Your task to perform on an android device: Go to calendar. Show me events next week Image 0: 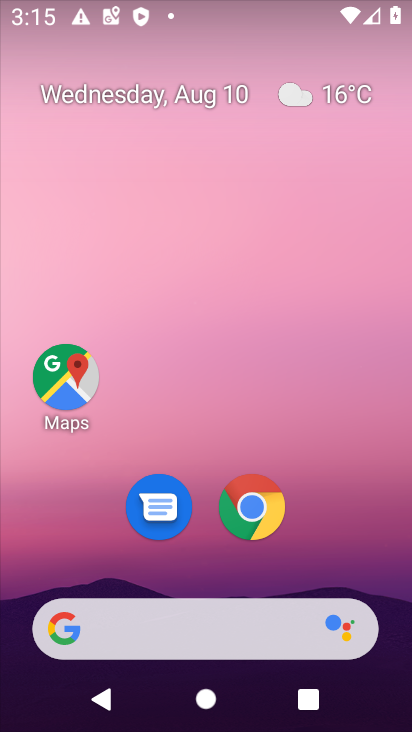
Step 0: drag from (351, 516) to (332, 10)
Your task to perform on an android device: Go to calendar. Show me events next week Image 1: 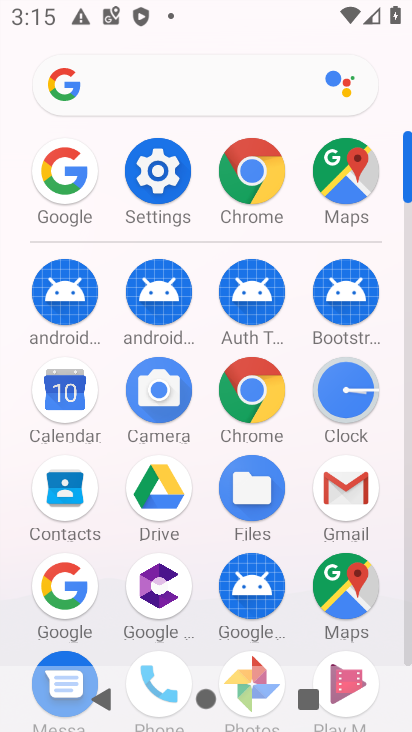
Step 1: click (42, 398)
Your task to perform on an android device: Go to calendar. Show me events next week Image 2: 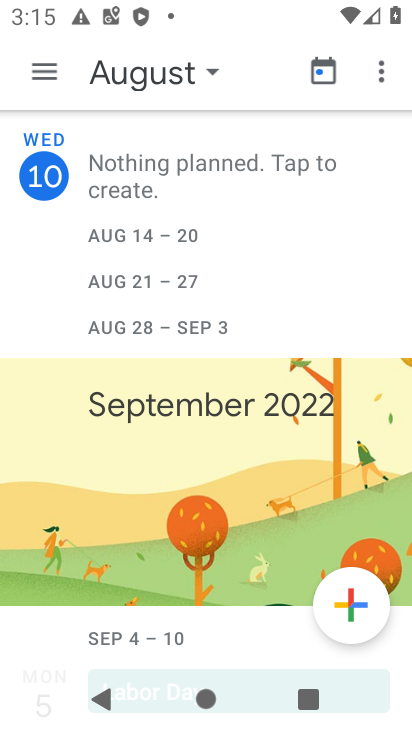
Step 2: click (128, 80)
Your task to perform on an android device: Go to calendar. Show me events next week Image 3: 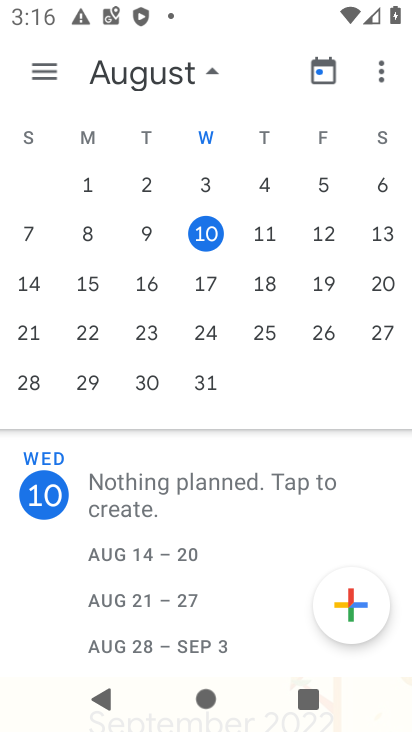
Step 3: click (210, 279)
Your task to perform on an android device: Go to calendar. Show me events next week Image 4: 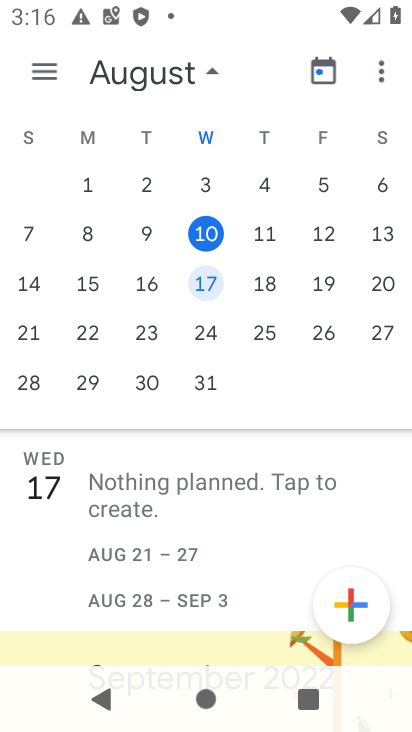
Step 4: click (51, 79)
Your task to perform on an android device: Go to calendar. Show me events next week Image 5: 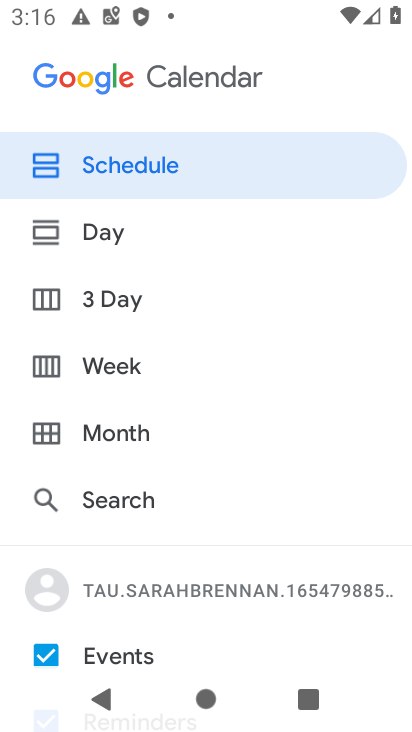
Step 5: click (101, 369)
Your task to perform on an android device: Go to calendar. Show me events next week Image 6: 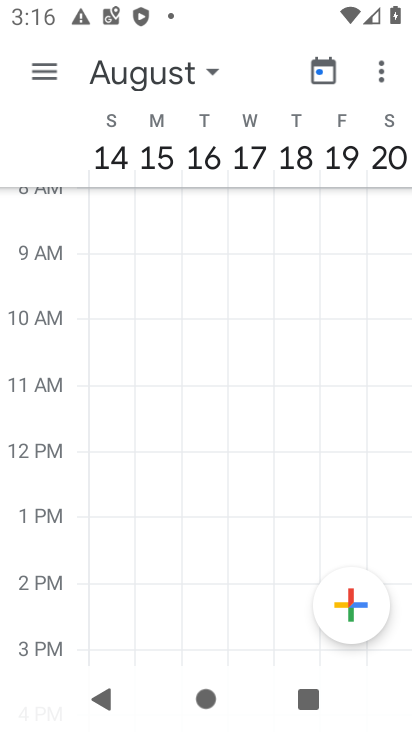
Step 6: task complete